Your task to perform on an android device: Go to Google maps Image 0: 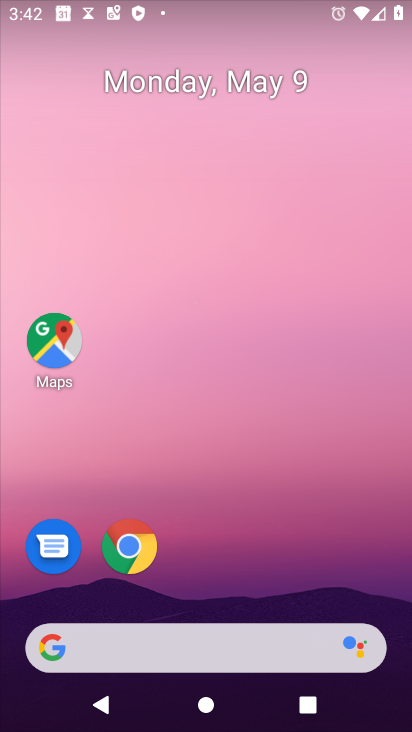
Step 0: drag from (270, 377) to (216, 107)
Your task to perform on an android device: Go to Google maps Image 1: 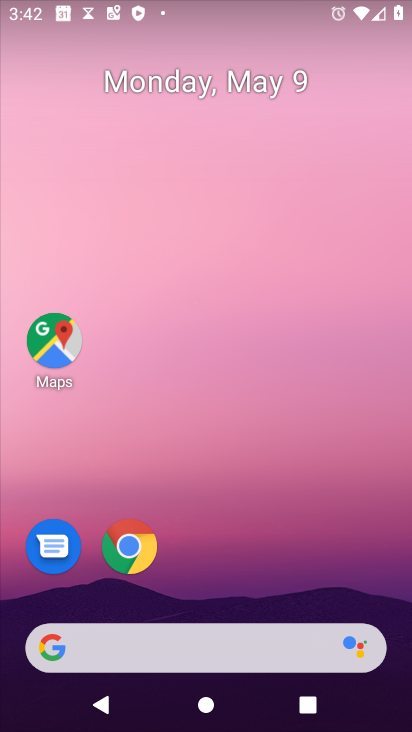
Step 1: drag from (309, 552) to (288, 78)
Your task to perform on an android device: Go to Google maps Image 2: 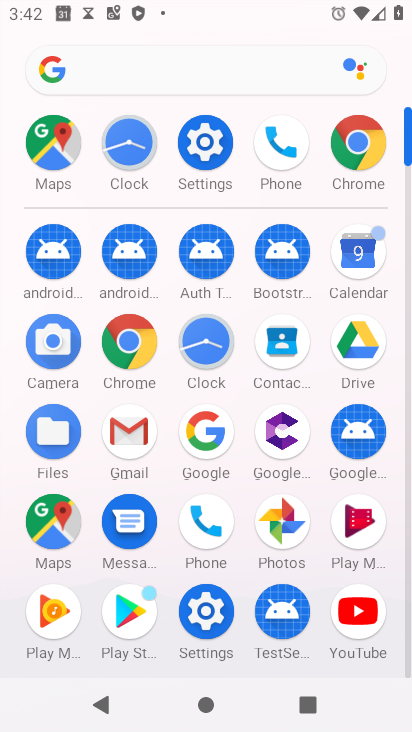
Step 2: click (53, 138)
Your task to perform on an android device: Go to Google maps Image 3: 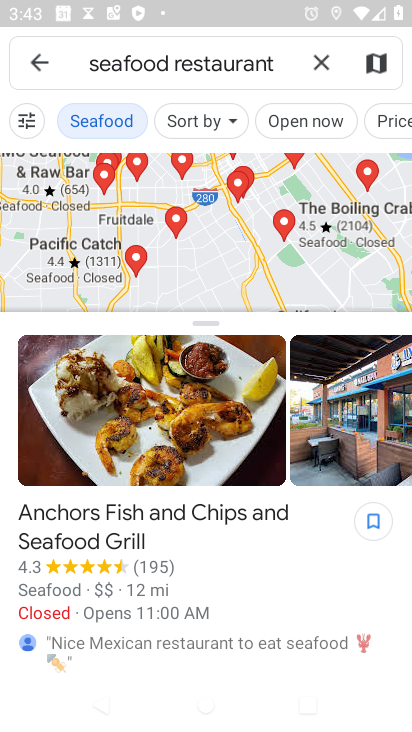
Step 3: task complete